Your task to perform on an android device: uninstall "Spotify: Music and Podcasts" Image 0: 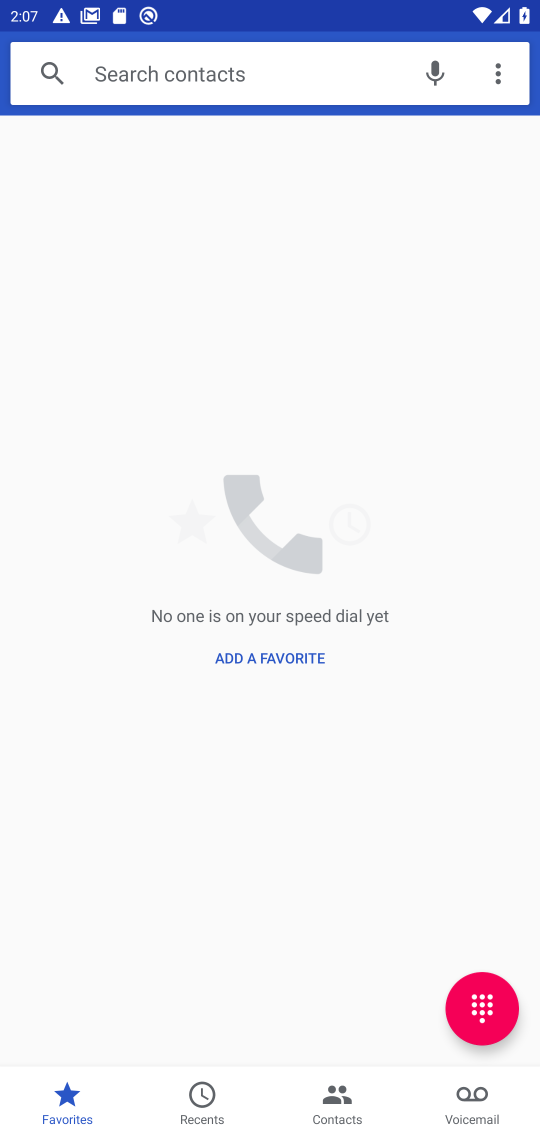
Step 0: press home button
Your task to perform on an android device: uninstall "Spotify: Music and Podcasts" Image 1: 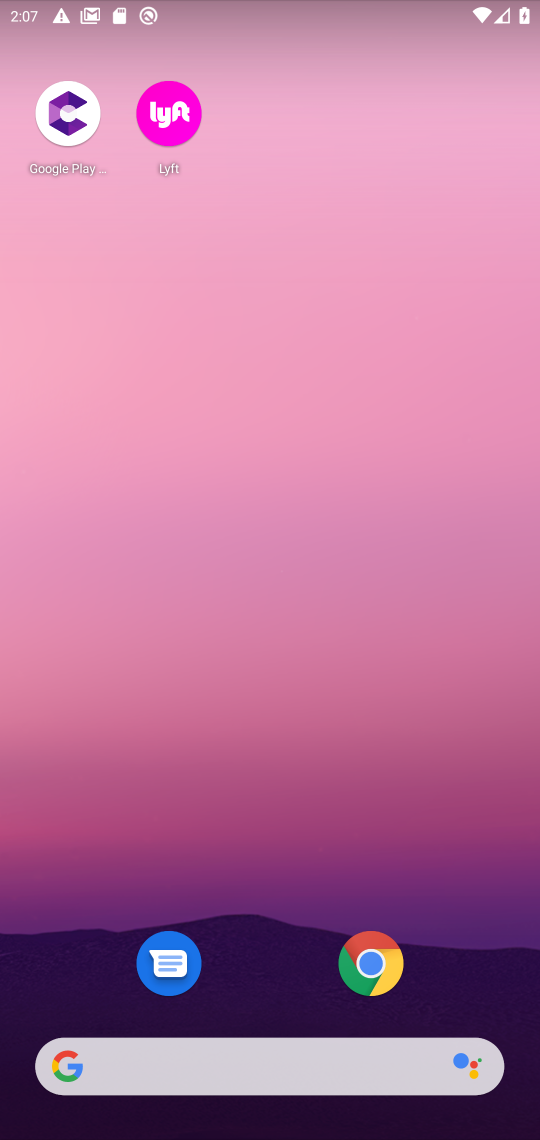
Step 1: drag from (275, 946) to (247, 88)
Your task to perform on an android device: uninstall "Spotify: Music and Podcasts" Image 2: 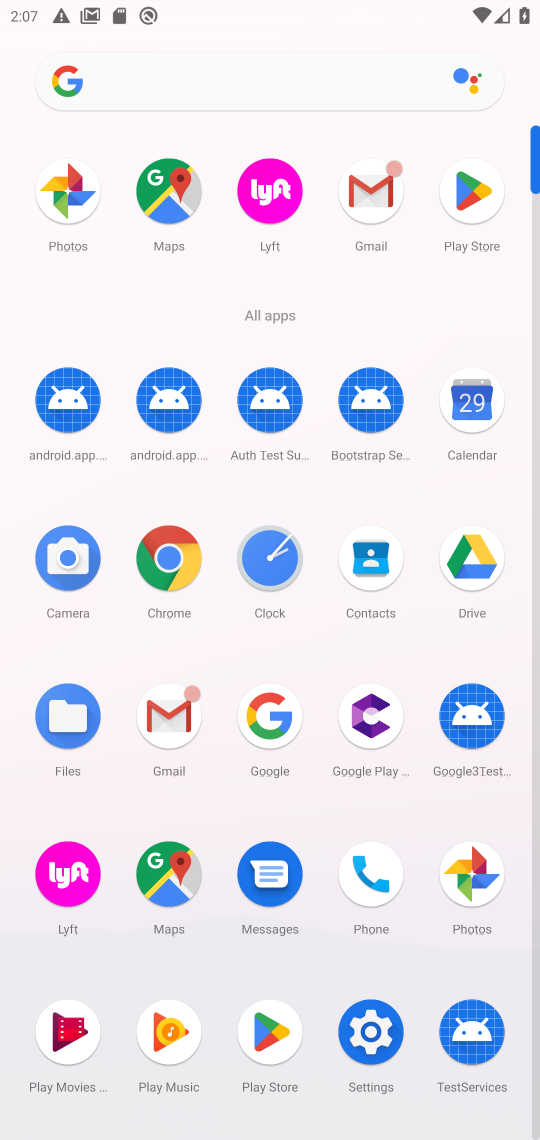
Step 2: click (473, 212)
Your task to perform on an android device: uninstall "Spotify: Music and Podcasts" Image 3: 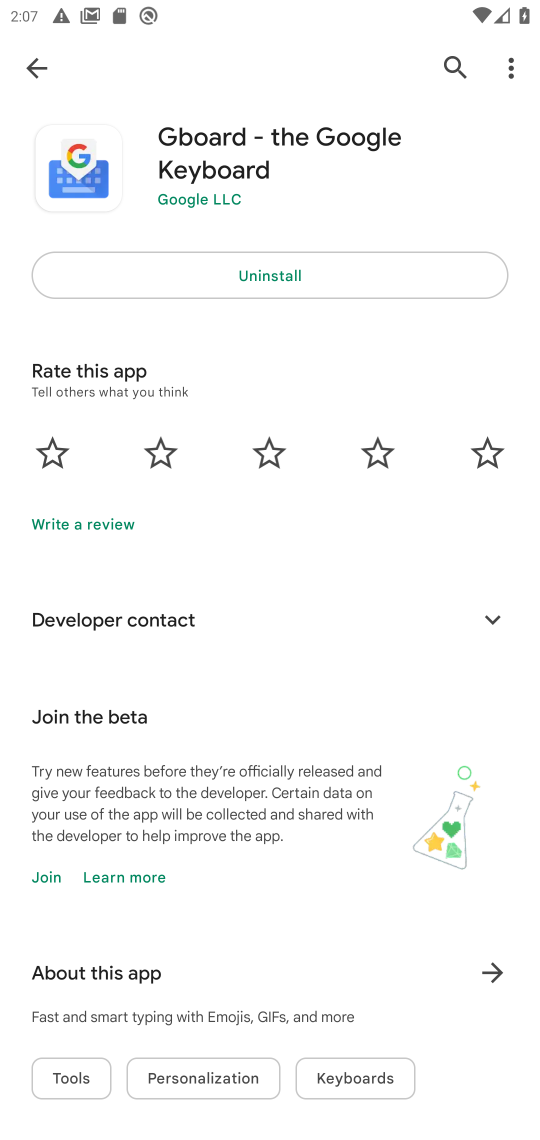
Step 3: click (453, 77)
Your task to perform on an android device: uninstall "Spotify: Music and Podcasts" Image 4: 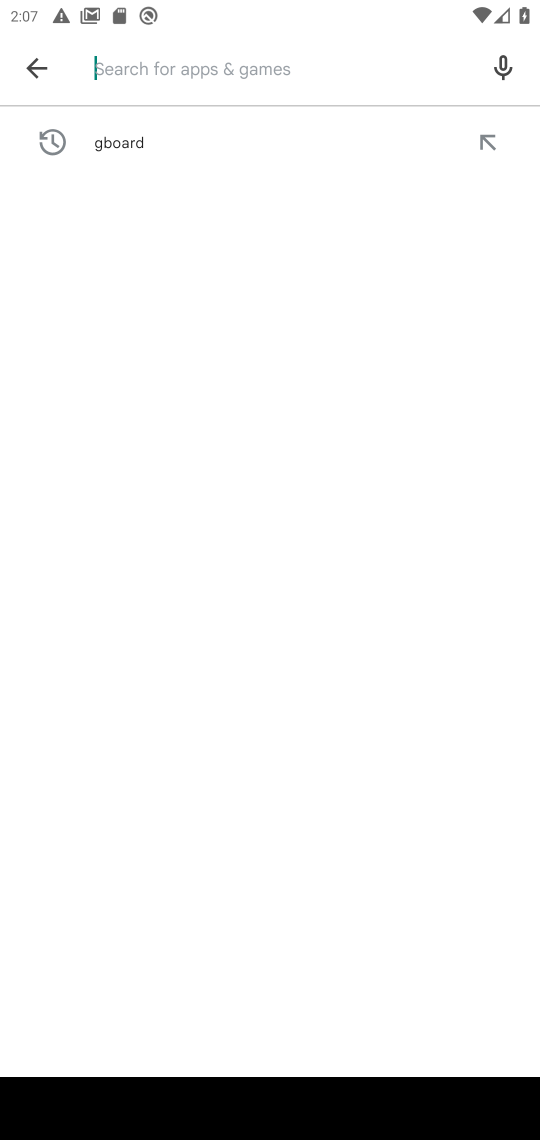
Step 4: type "Spotify: Music and Podcasts"
Your task to perform on an android device: uninstall "Spotify: Music and Podcasts" Image 5: 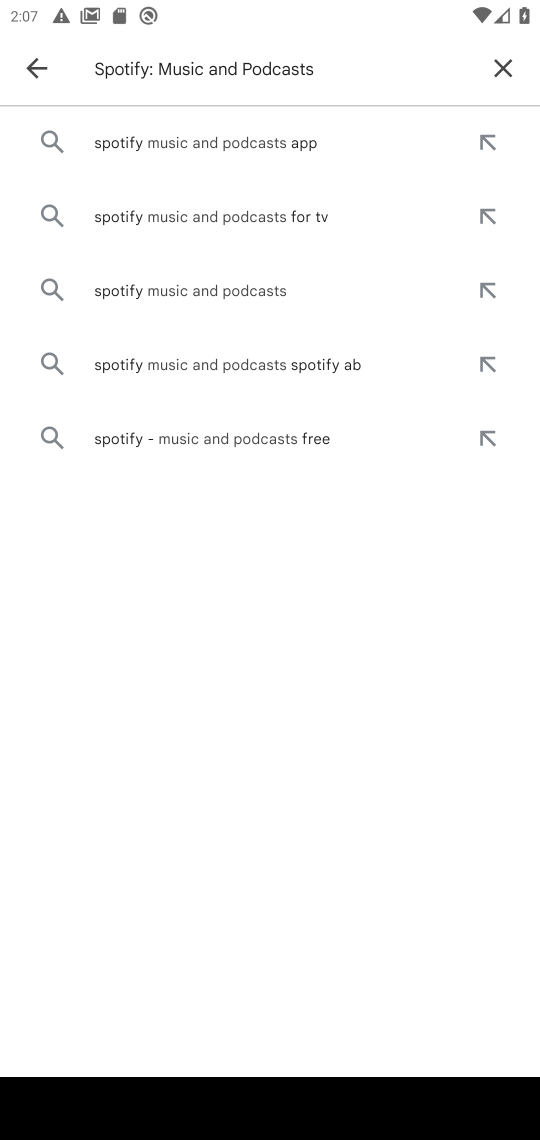
Step 5: click (288, 265)
Your task to perform on an android device: uninstall "Spotify: Music and Podcasts" Image 6: 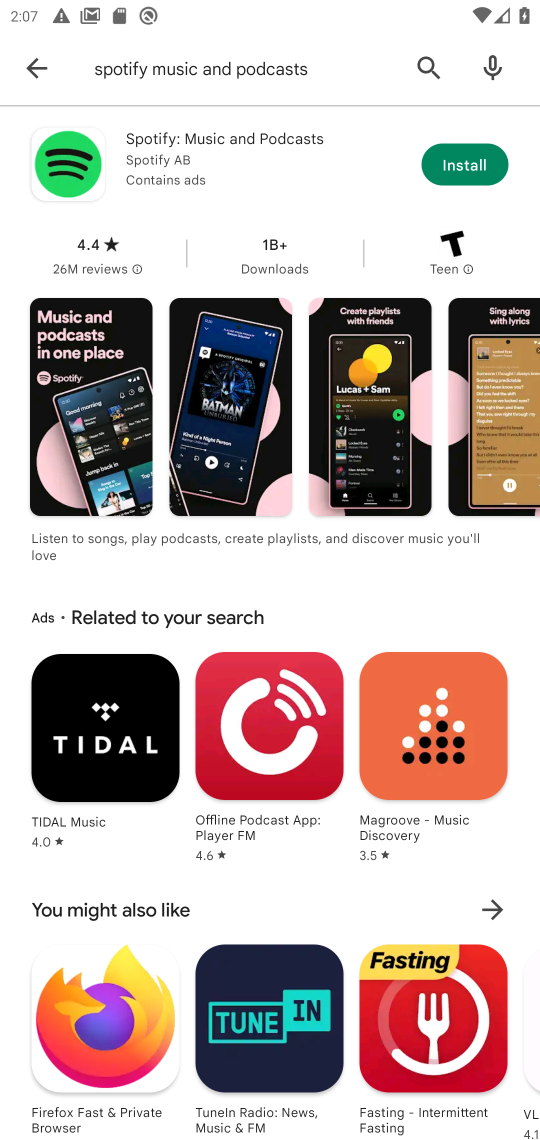
Step 6: click (279, 134)
Your task to perform on an android device: uninstall "Spotify: Music and Podcasts" Image 7: 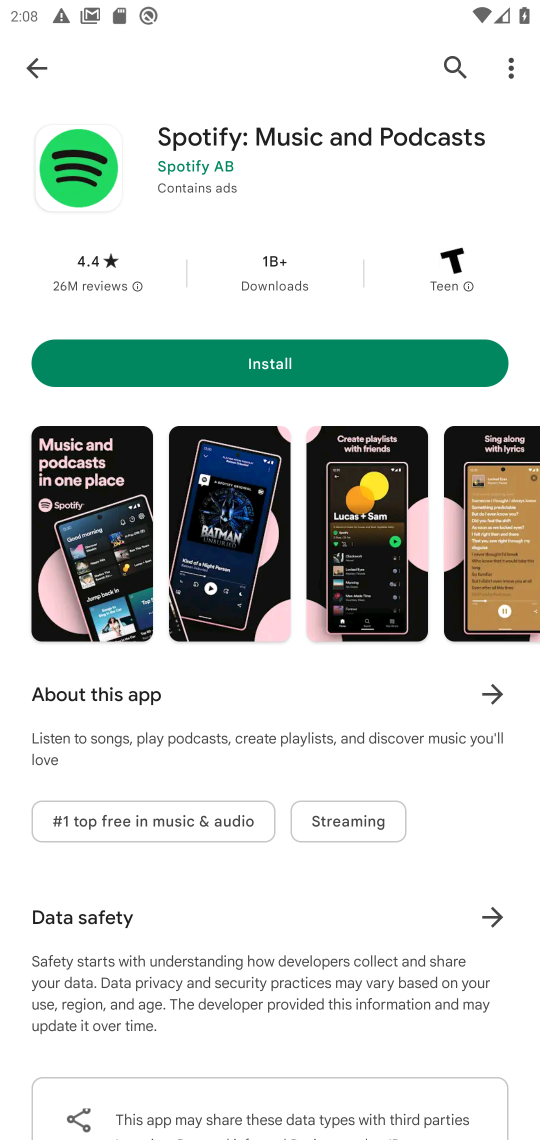
Step 7: task complete